Your task to perform on an android device: turn on showing notifications on the lock screen Image 0: 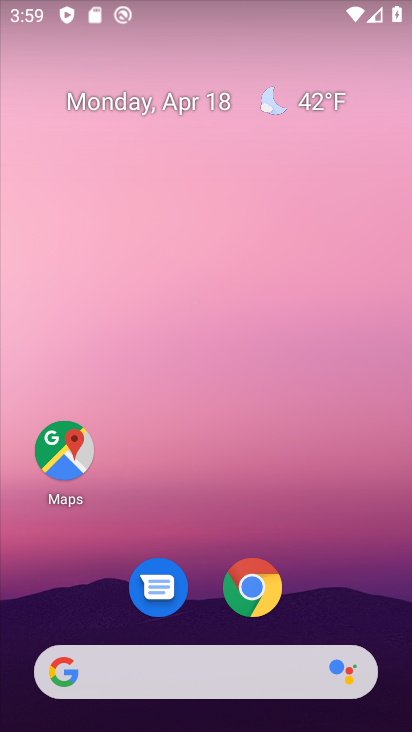
Step 0: drag from (162, 638) to (275, 59)
Your task to perform on an android device: turn on showing notifications on the lock screen Image 1: 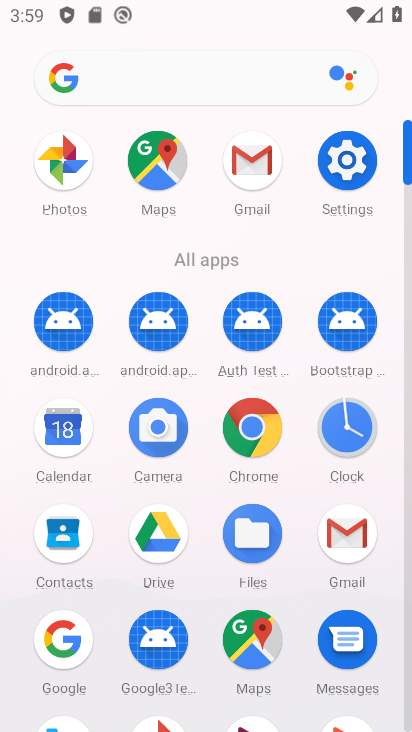
Step 1: drag from (169, 687) to (238, 349)
Your task to perform on an android device: turn on showing notifications on the lock screen Image 2: 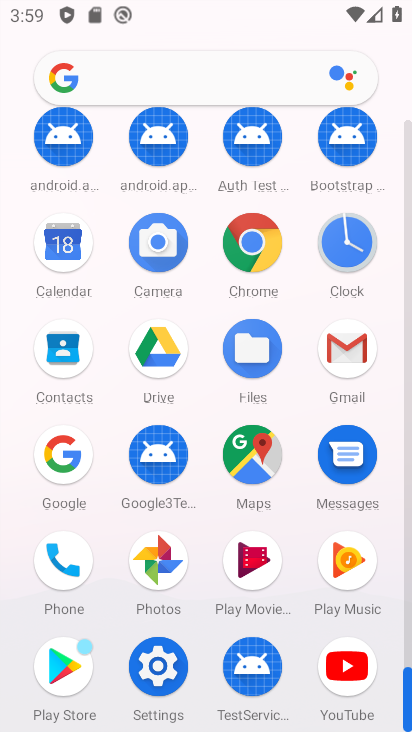
Step 2: click (158, 668)
Your task to perform on an android device: turn on showing notifications on the lock screen Image 3: 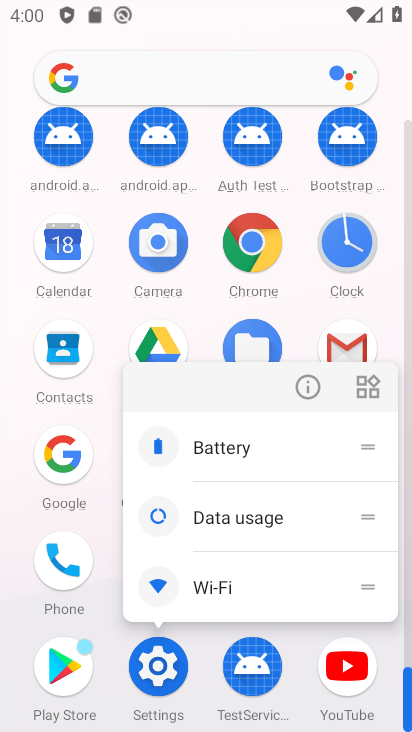
Step 3: click (157, 669)
Your task to perform on an android device: turn on showing notifications on the lock screen Image 4: 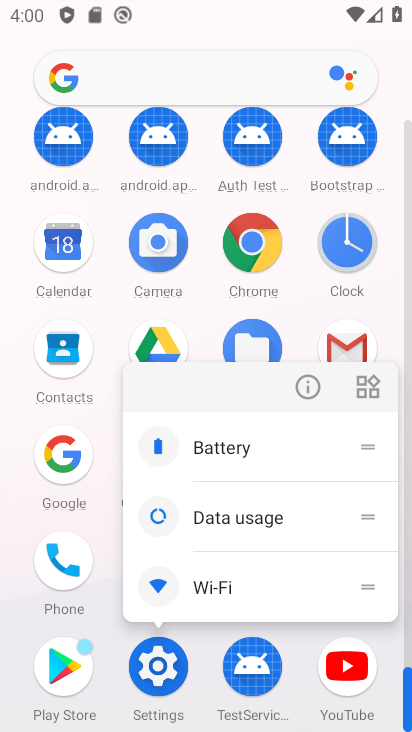
Step 4: click (137, 678)
Your task to perform on an android device: turn on showing notifications on the lock screen Image 5: 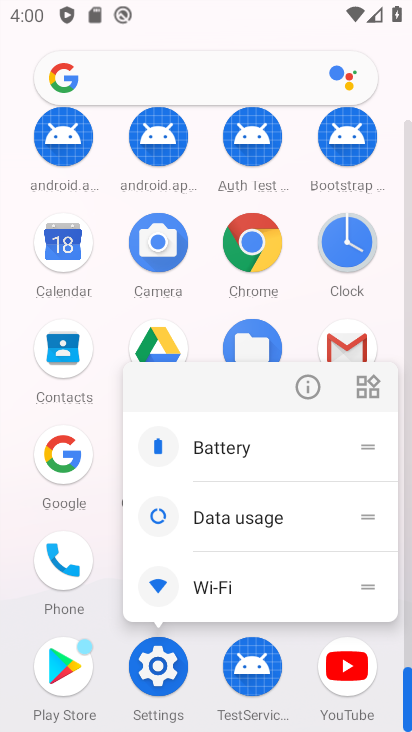
Step 5: click (148, 665)
Your task to perform on an android device: turn on showing notifications on the lock screen Image 6: 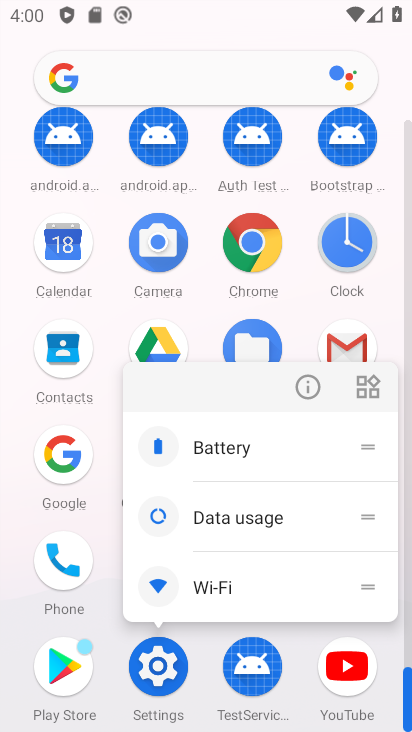
Step 6: click (158, 674)
Your task to perform on an android device: turn on showing notifications on the lock screen Image 7: 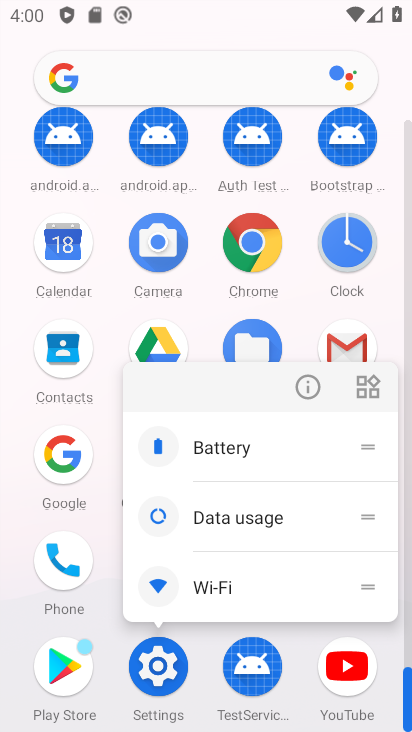
Step 7: click (163, 679)
Your task to perform on an android device: turn on showing notifications on the lock screen Image 8: 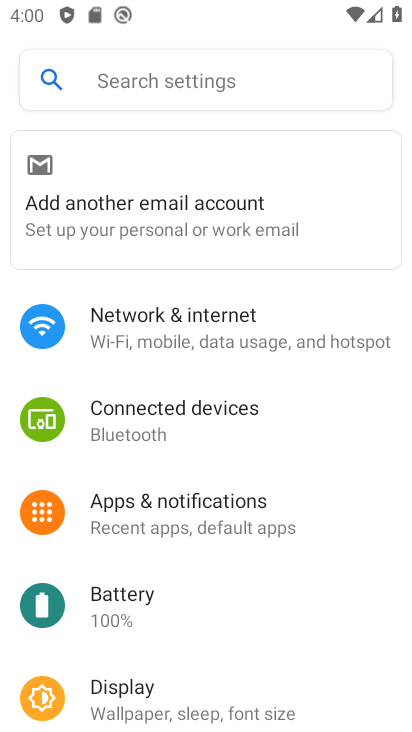
Step 8: drag from (128, 669) to (206, 397)
Your task to perform on an android device: turn on showing notifications on the lock screen Image 9: 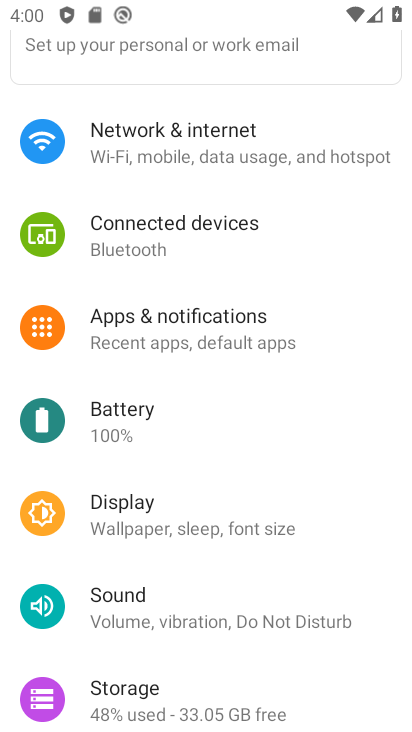
Step 9: click (222, 317)
Your task to perform on an android device: turn on showing notifications on the lock screen Image 10: 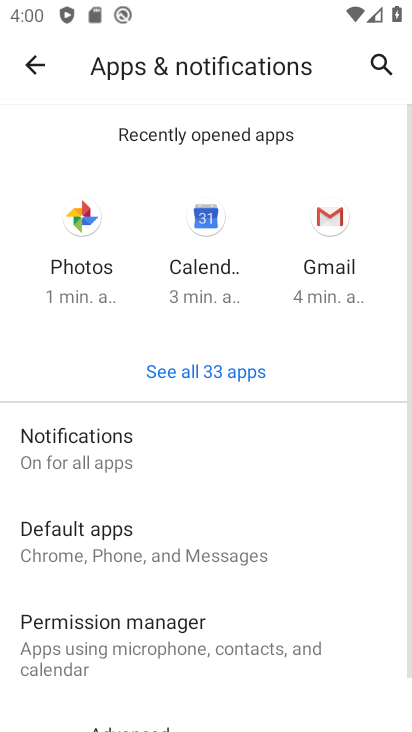
Step 10: click (163, 439)
Your task to perform on an android device: turn on showing notifications on the lock screen Image 11: 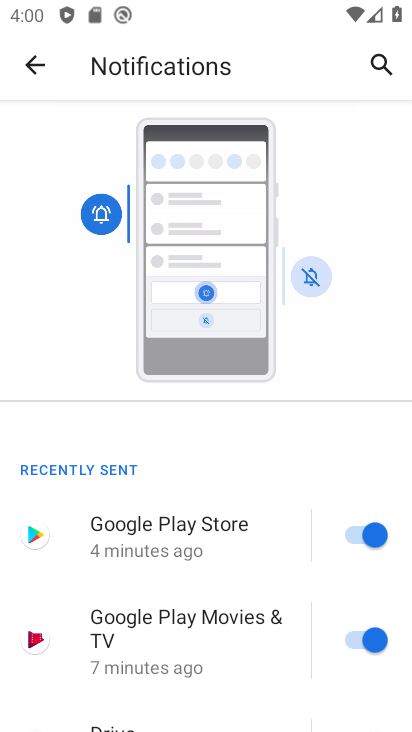
Step 11: drag from (149, 583) to (260, 206)
Your task to perform on an android device: turn on showing notifications on the lock screen Image 12: 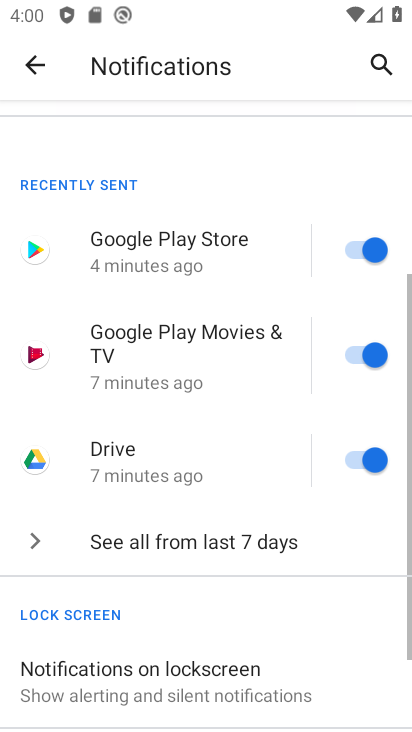
Step 12: drag from (197, 429) to (235, 279)
Your task to perform on an android device: turn on showing notifications on the lock screen Image 13: 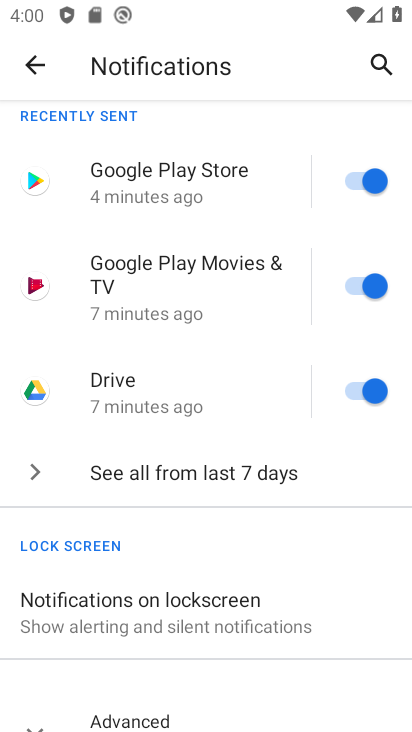
Step 13: click (133, 606)
Your task to perform on an android device: turn on showing notifications on the lock screen Image 14: 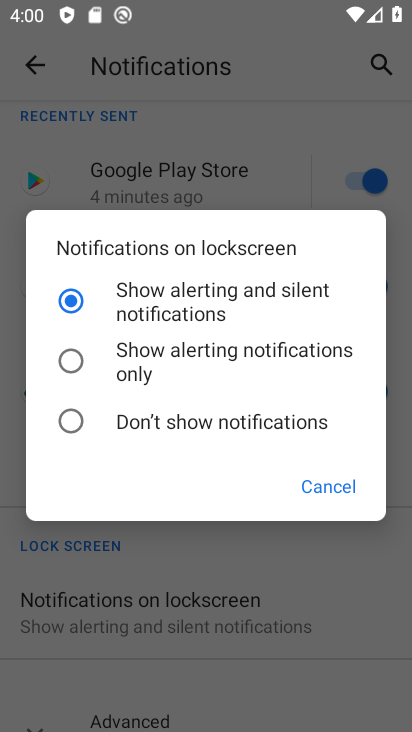
Step 14: task complete